Your task to perform on an android device: check storage Image 0: 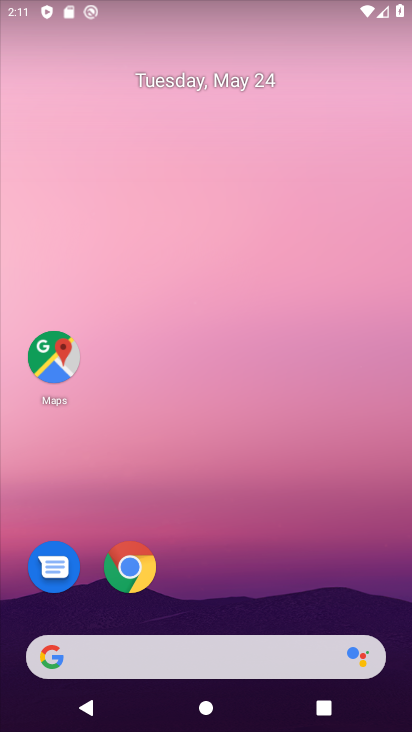
Step 0: drag from (204, 616) to (214, 72)
Your task to perform on an android device: check storage Image 1: 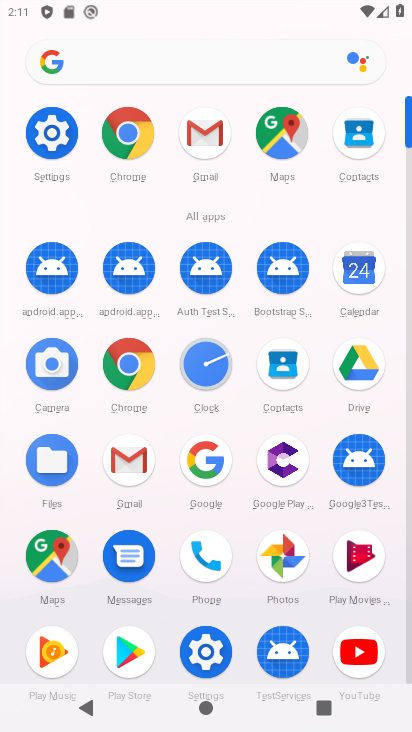
Step 1: click (48, 124)
Your task to perform on an android device: check storage Image 2: 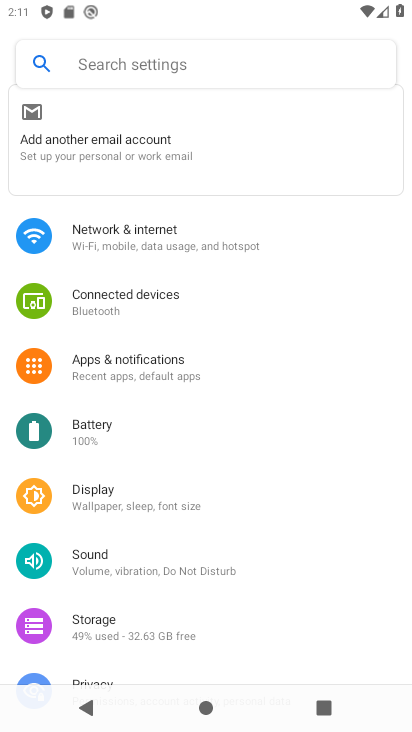
Step 2: click (114, 625)
Your task to perform on an android device: check storage Image 3: 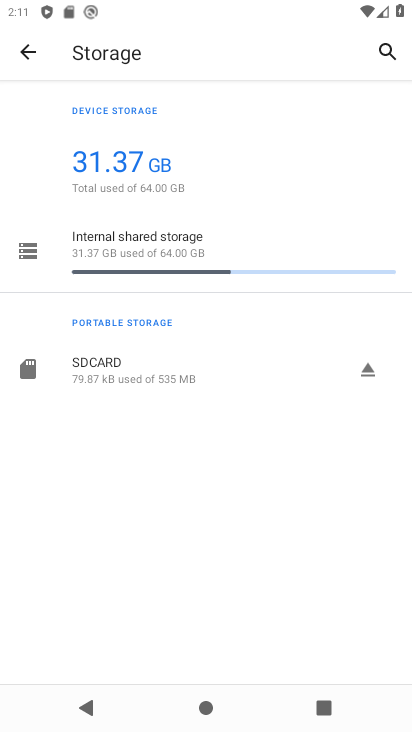
Step 3: task complete